Your task to perform on an android device: Do I have any events today? Image 0: 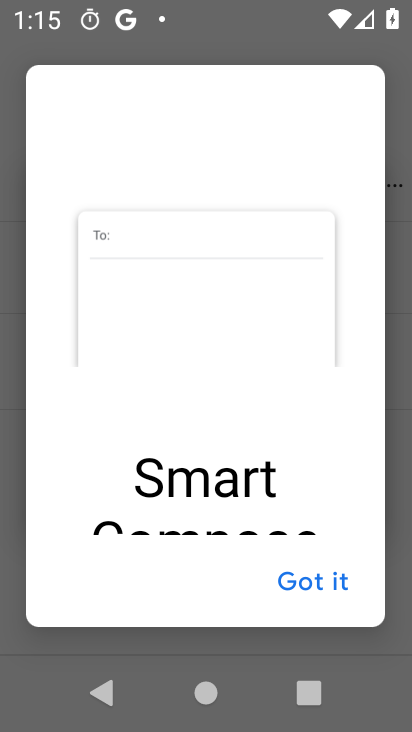
Step 0: press home button
Your task to perform on an android device: Do I have any events today? Image 1: 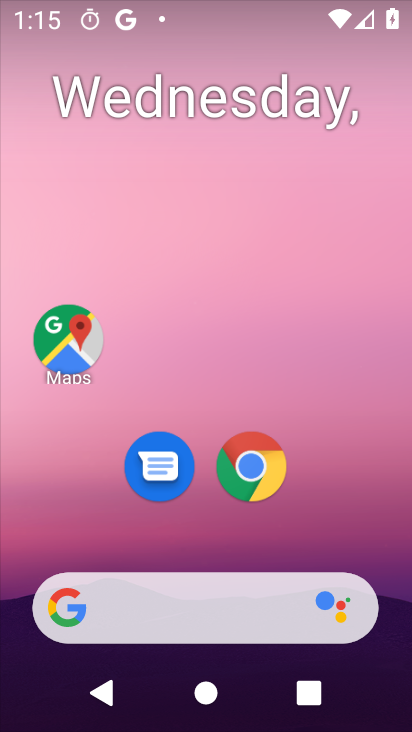
Step 1: drag from (317, 525) to (271, 101)
Your task to perform on an android device: Do I have any events today? Image 2: 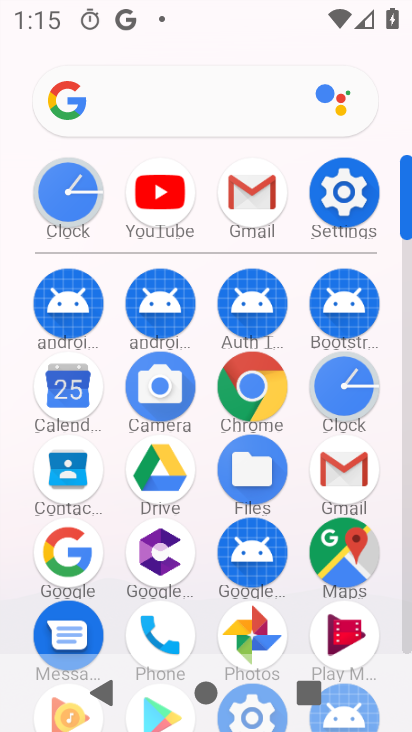
Step 2: click (80, 407)
Your task to perform on an android device: Do I have any events today? Image 3: 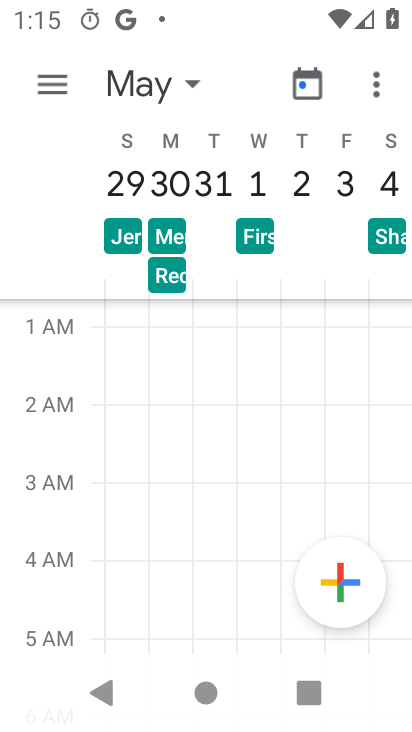
Step 3: task complete